Your task to perform on an android device: Open the calendar app, open the side menu, and click the "Day" option Image 0: 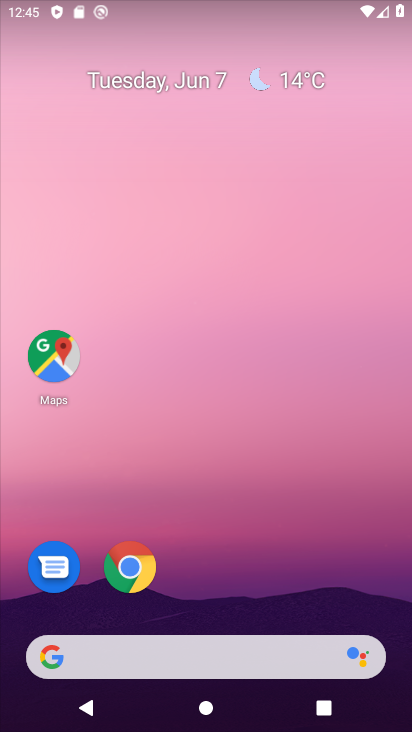
Step 0: drag from (2, 306) to (411, 284)
Your task to perform on an android device: Open the calendar app, open the side menu, and click the "Day" option Image 1: 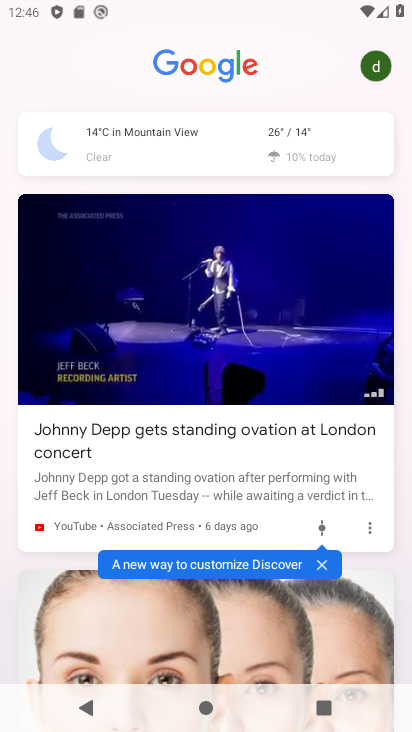
Step 1: press home button
Your task to perform on an android device: Open the calendar app, open the side menu, and click the "Day" option Image 2: 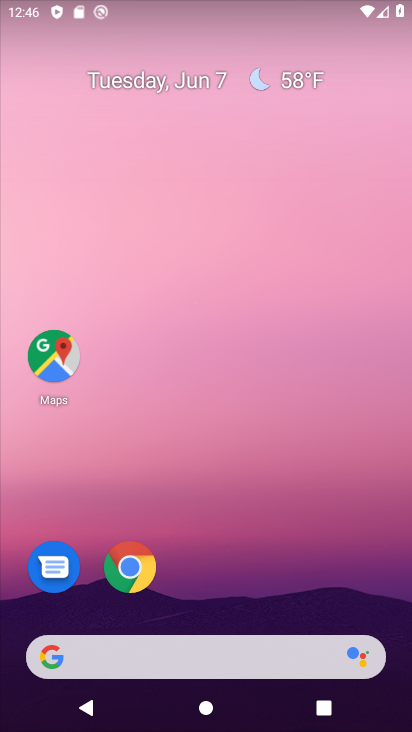
Step 2: drag from (346, 109) to (341, 69)
Your task to perform on an android device: Open the calendar app, open the side menu, and click the "Day" option Image 3: 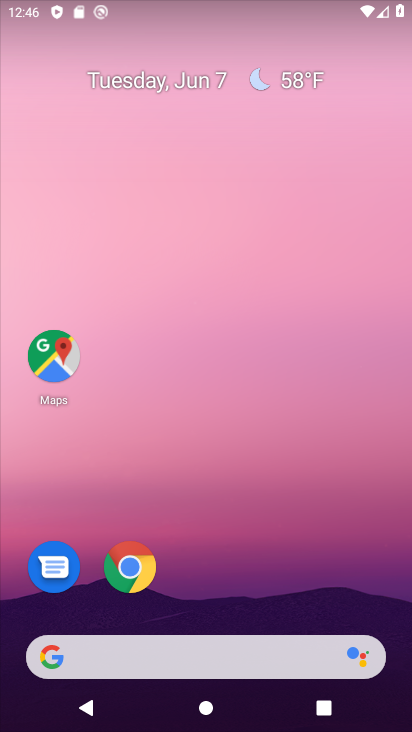
Step 3: drag from (402, 713) to (347, 82)
Your task to perform on an android device: Open the calendar app, open the side menu, and click the "Day" option Image 4: 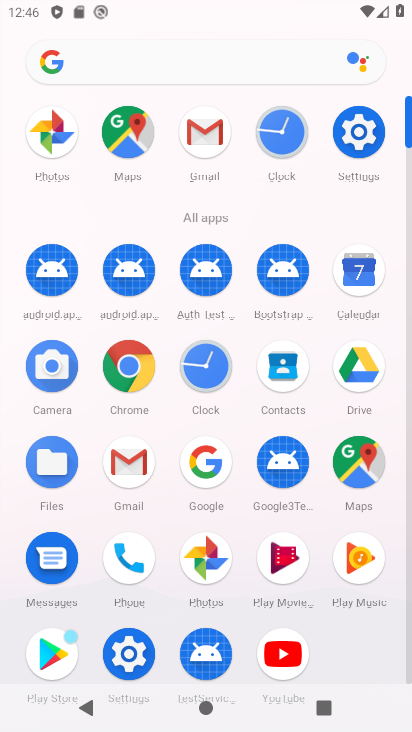
Step 4: click (366, 278)
Your task to perform on an android device: Open the calendar app, open the side menu, and click the "Day" option Image 5: 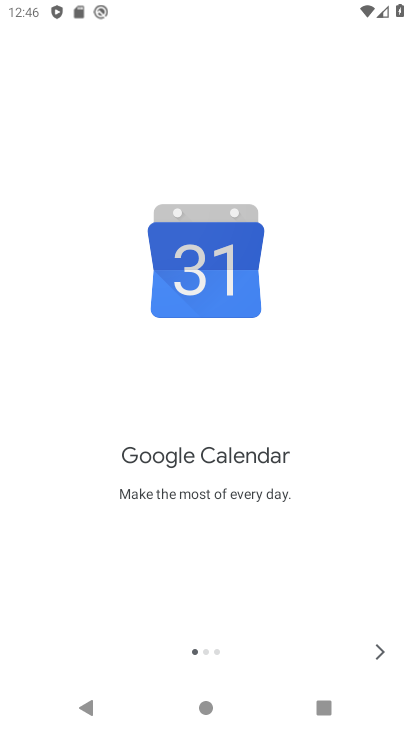
Step 5: click (366, 650)
Your task to perform on an android device: Open the calendar app, open the side menu, and click the "Day" option Image 6: 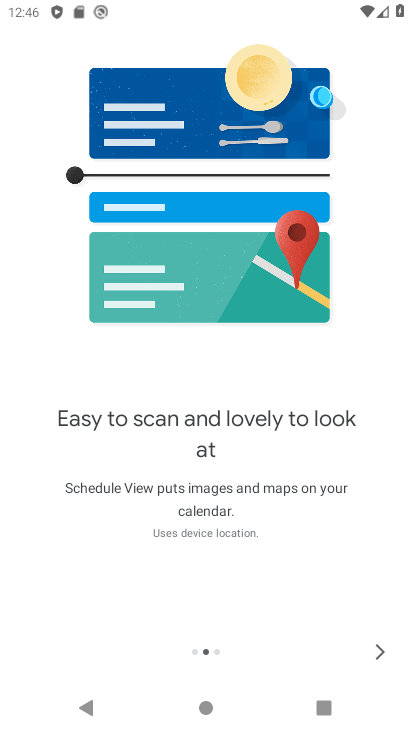
Step 6: click (368, 649)
Your task to perform on an android device: Open the calendar app, open the side menu, and click the "Day" option Image 7: 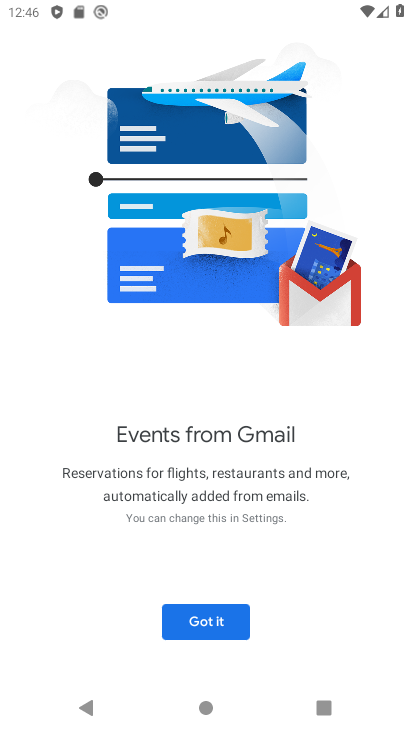
Step 7: click (214, 623)
Your task to perform on an android device: Open the calendar app, open the side menu, and click the "Day" option Image 8: 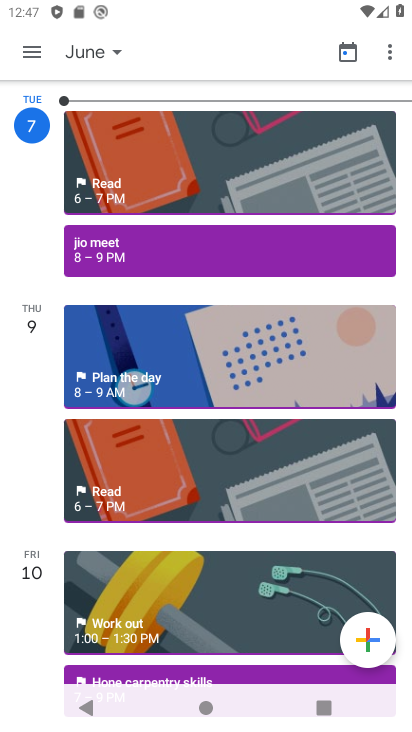
Step 8: click (37, 55)
Your task to perform on an android device: Open the calendar app, open the side menu, and click the "Day" option Image 9: 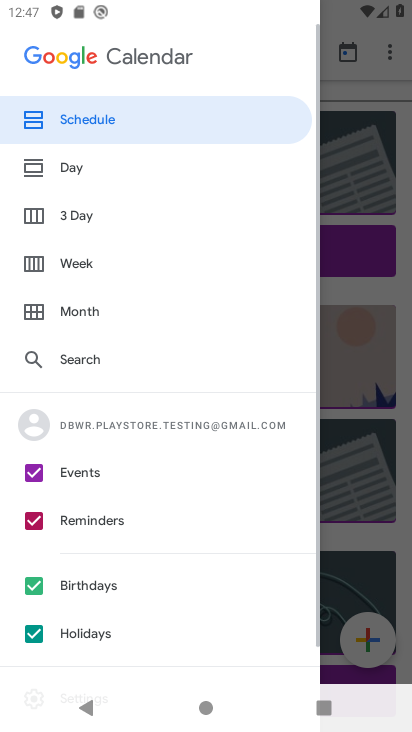
Step 9: click (76, 159)
Your task to perform on an android device: Open the calendar app, open the side menu, and click the "Day" option Image 10: 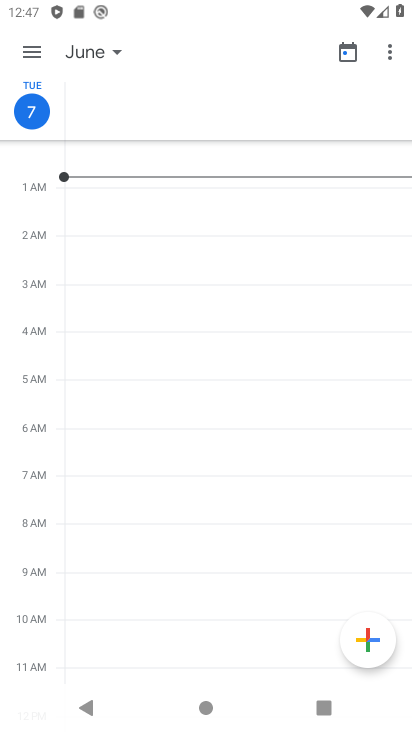
Step 10: task complete